Your task to perform on an android device: turn on wifi Image 0: 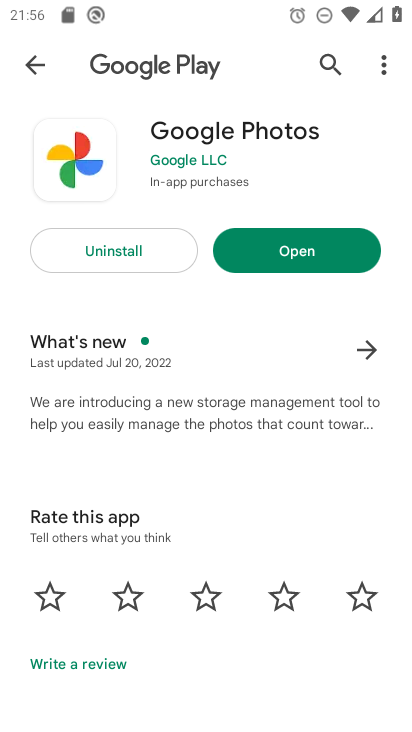
Step 0: press home button
Your task to perform on an android device: turn on wifi Image 1: 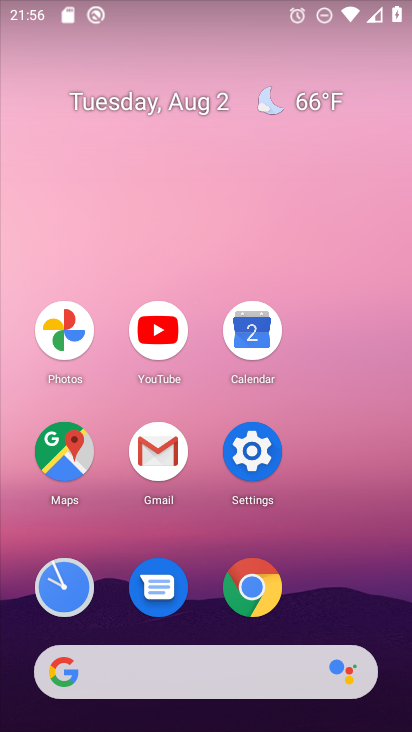
Step 1: click (248, 452)
Your task to perform on an android device: turn on wifi Image 2: 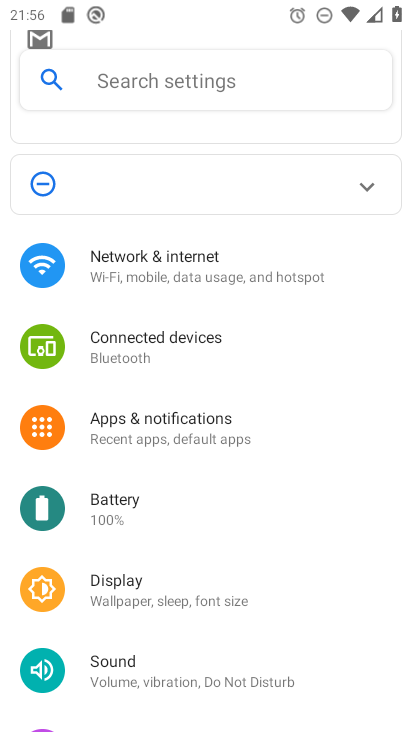
Step 2: click (157, 251)
Your task to perform on an android device: turn on wifi Image 3: 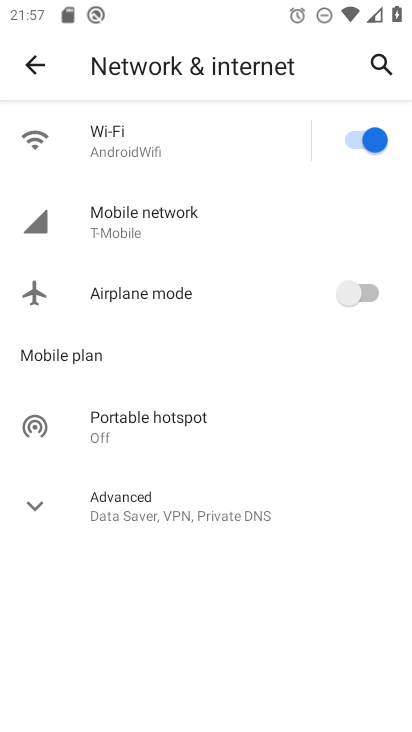
Step 3: task complete